Your task to perform on an android device: Go to Reddit.com Image 0: 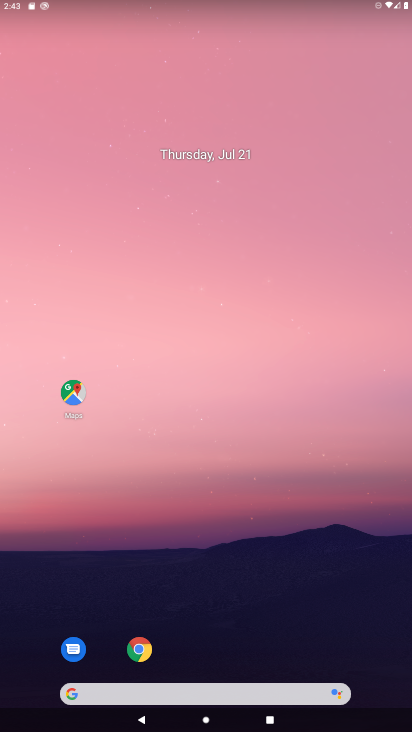
Step 0: drag from (270, 658) to (300, 70)
Your task to perform on an android device: Go to Reddit.com Image 1: 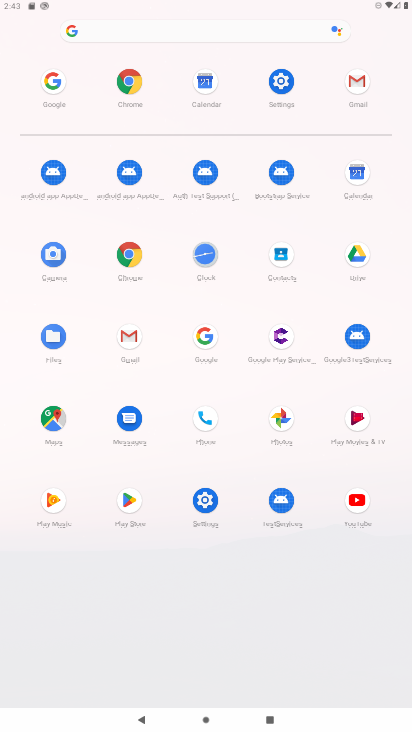
Step 1: click (128, 71)
Your task to perform on an android device: Go to Reddit.com Image 2: 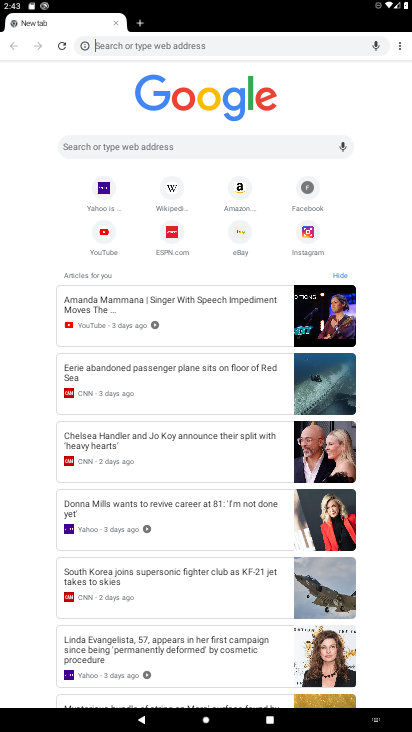
Step 2: click (139, 150)
Your task to perform on an android device: Go to Reddit.com Image 3: 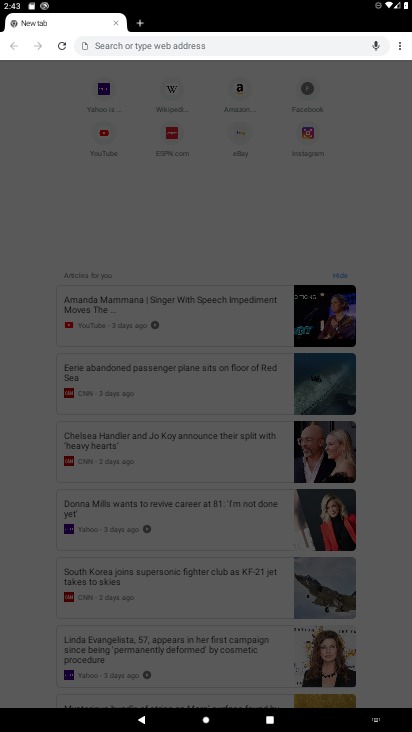
Step 3: type "Reddit.com"
Your task to perform on an android device: Go to Reddit.com Image 4: 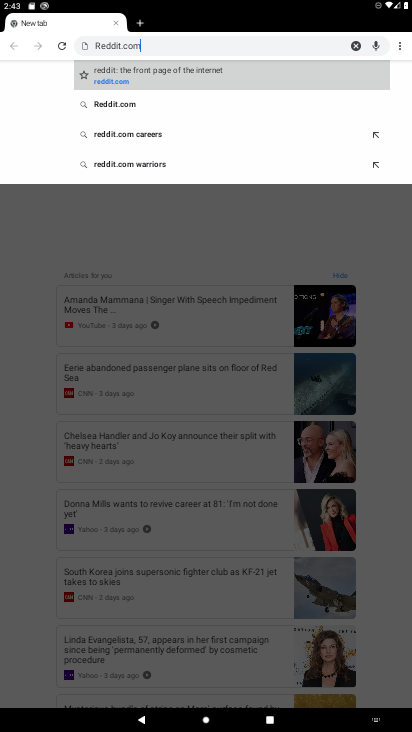
Step 4: click (123, 99)
Your task to perform on an android device: Go to Reddit.com Image 5: 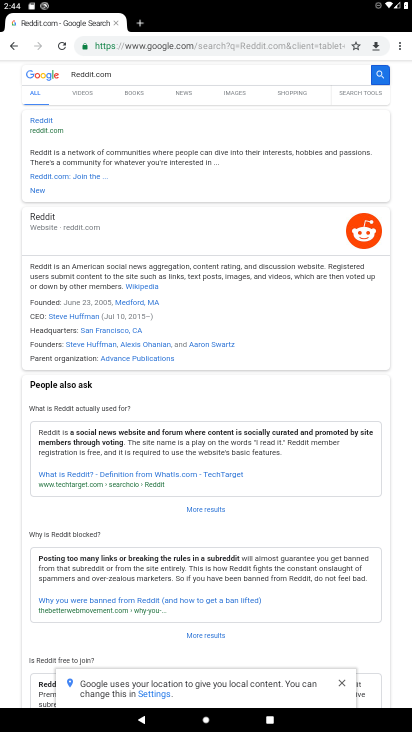
Step 5: click (39, 135)
Your task to perform on an android device: Go to Reddit.com Image 6: 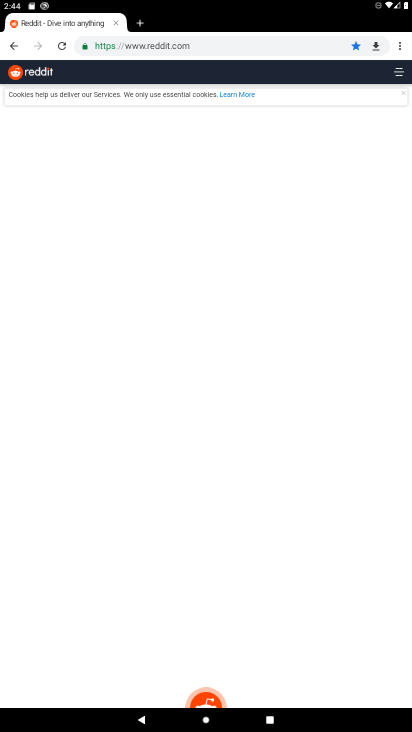
Step 6: task complete